Your task to perform on an android device: Go to network settings Image 0: 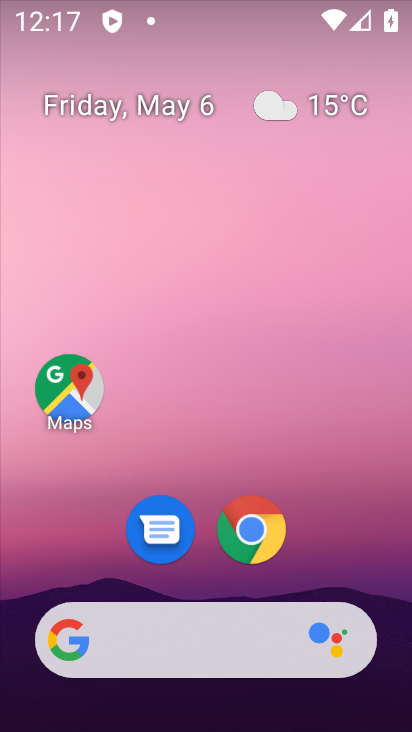
Step 0: drag from (334, 524) to (314, 21)
Your task to perform on an android device: Go to network settings Image 1: 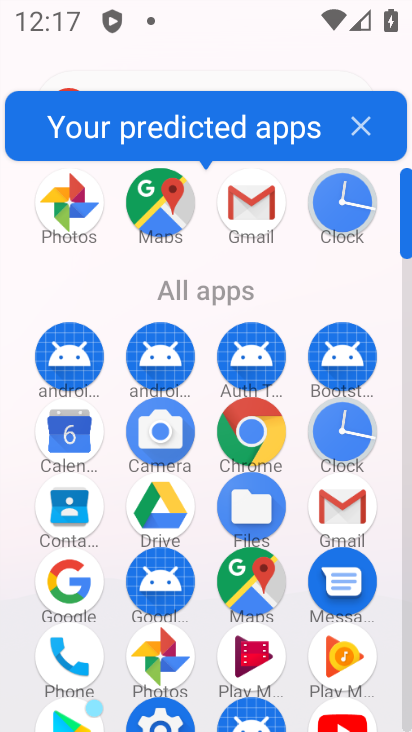
Step 1: drag from (198, 285) to (183, 30)
Your task to perform on an android device: Go to network settings Image 2: 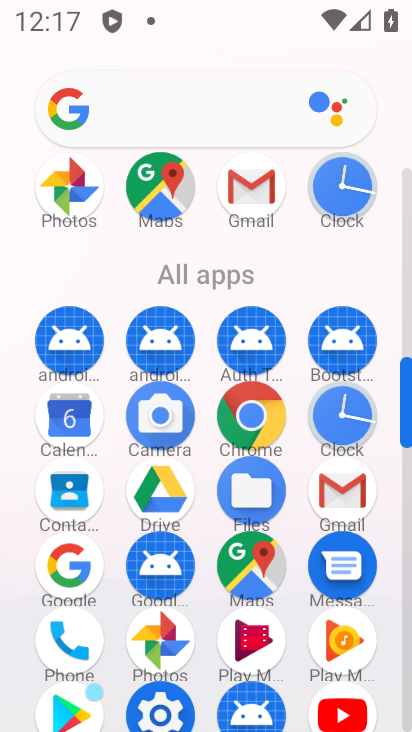
Step 2: click (145, 688)
Your task to perform on an android device: Go to network settings Image 3: 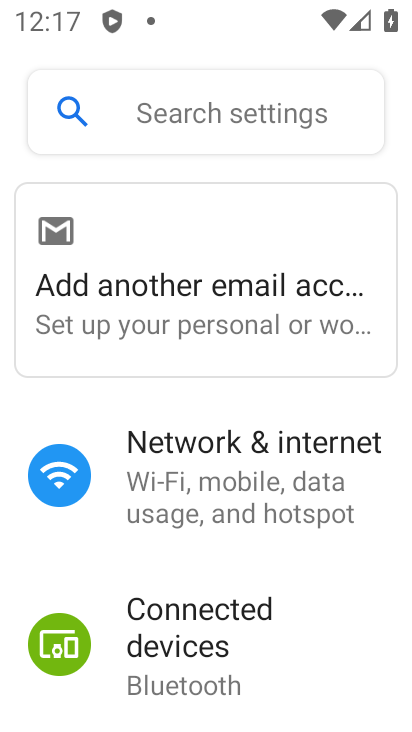
Step 3: click (216, 468)
Your task to perform on an android device: Go to network settings Image 4: 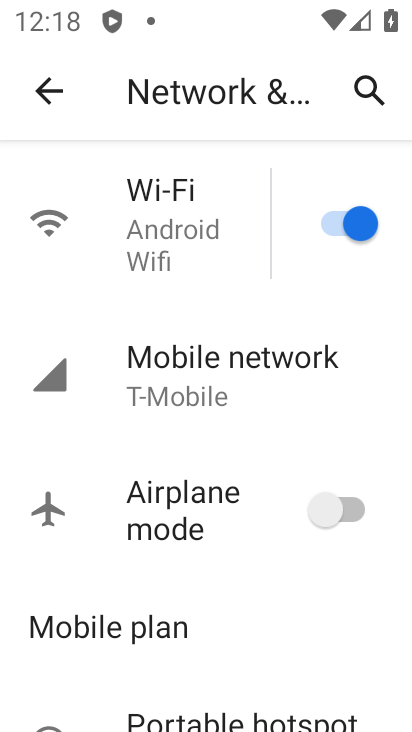
Step 4: task complete